Your task to perform on an android device: Check the weather Image 0: 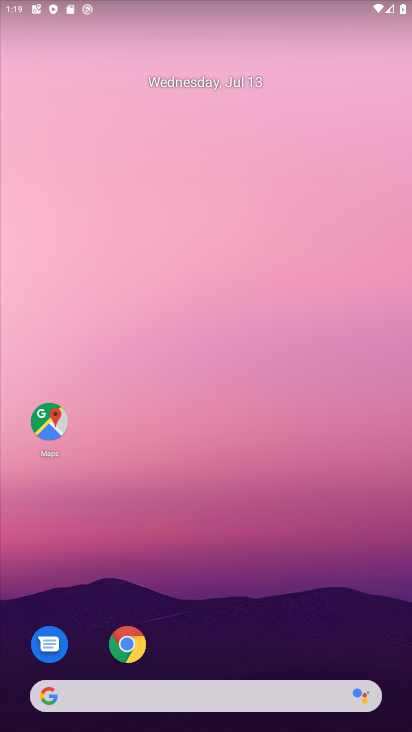
Step 0: click (191, 694)
Your task to perform on an android device: Check the weather Image 1: 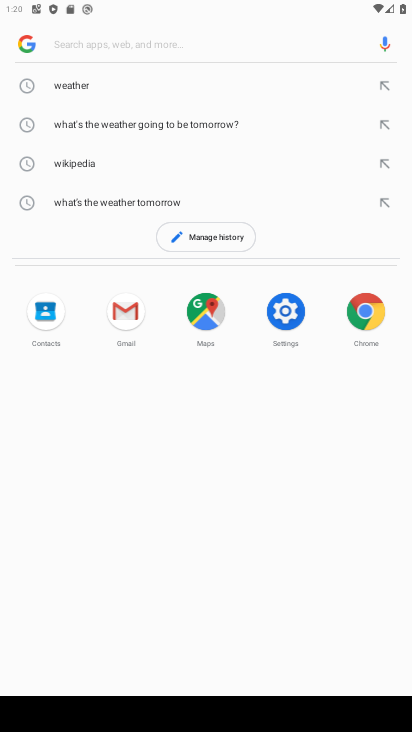
Step 1: type "weather"
Your task to perform on an android device: Check the weather Image 2: 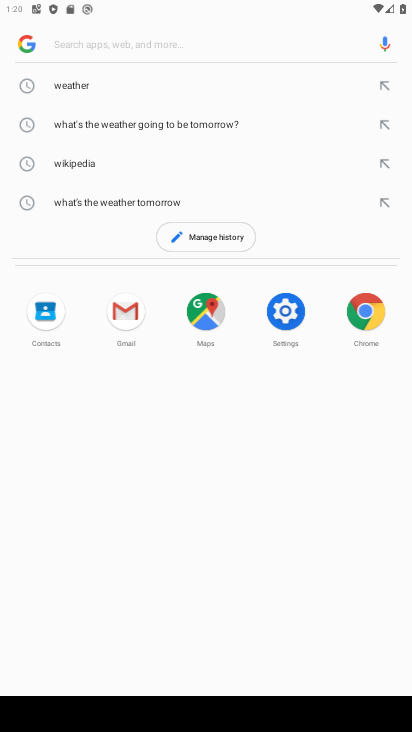
Step 2: click (94, 46)
Your task to perform on an android device: Check the weather Image 3: 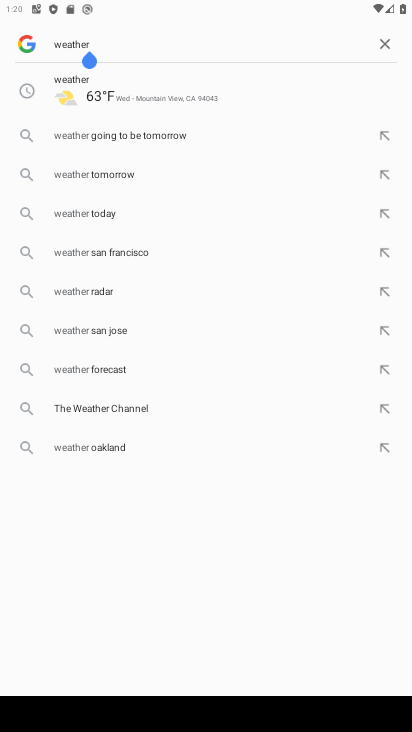
Step 3: press enter
Your task to perform on an android device: Check the weather Image 4: 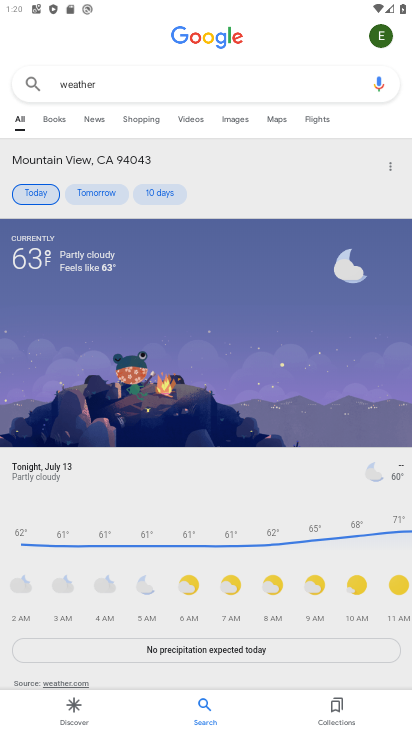
Step 4: task complete